Your task to perform on an android device: Open Maps and search for coffee Image 0: 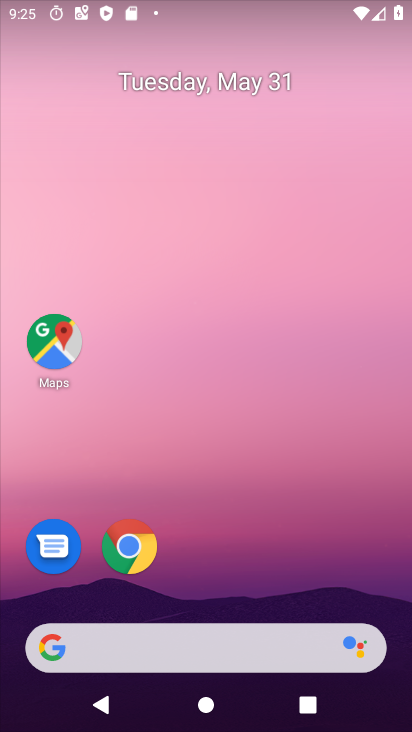
Step 0: click (68, 342)
Your task to perform on an android device: Open Maps and search for coffee Image 1: 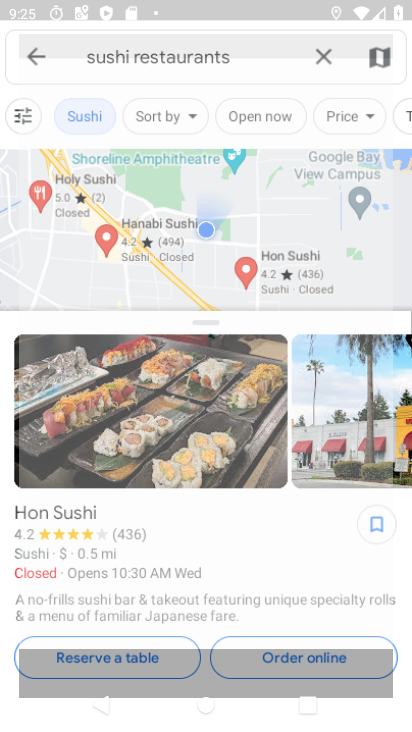
Step 1: click (311, 61)
Your task to perform on an android device: Open Maps and search for coffee Image 2: 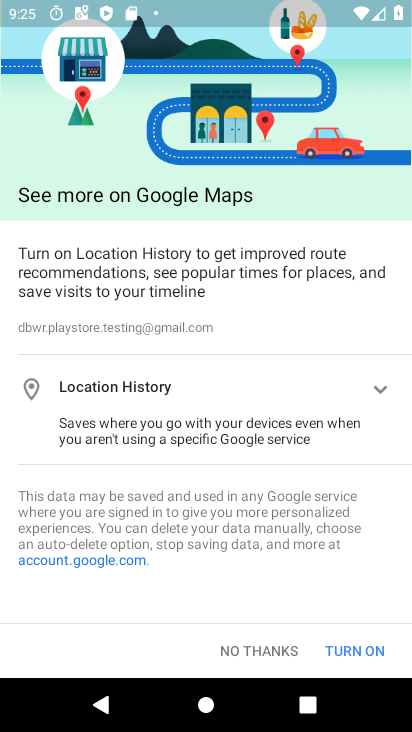
Step 2: click (362, 655)
Your task to perform on an android device: Open Maps and search for coffee Image 3: 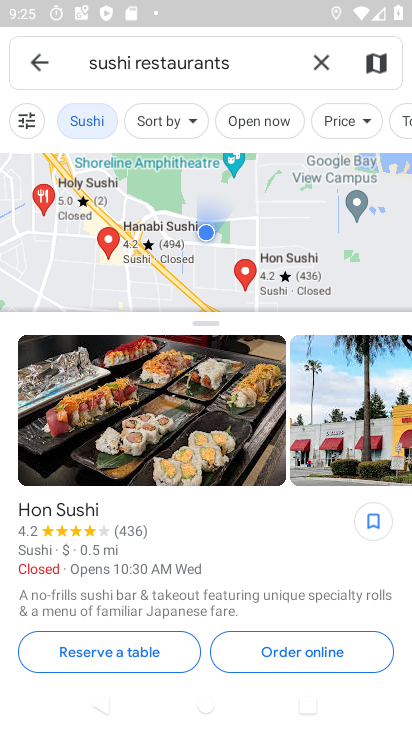
Step 3: click (322, 63)
Your task to perform on an android device: Open Maps and search for coffee Image 4: 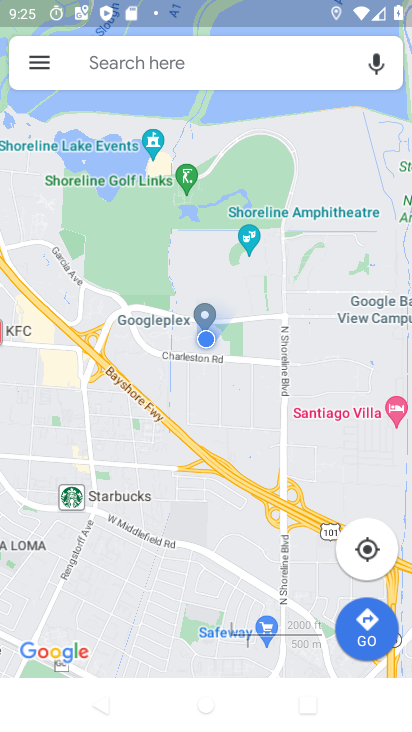
Step 4: click (204, 54)
Your task to perform on an android device: Open Maps and search for coffee Image 5: 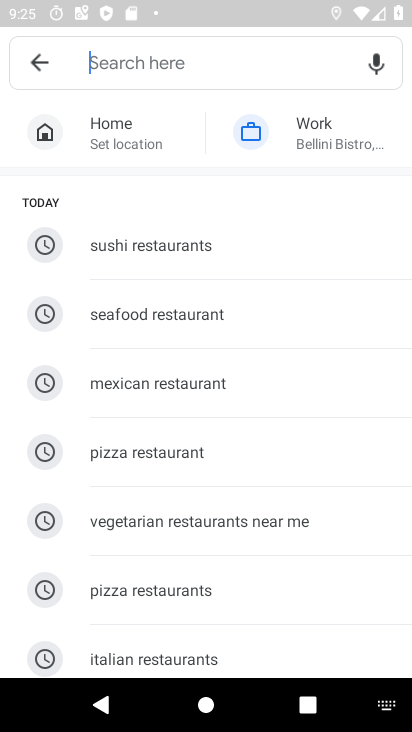
Step 5: type "coffee"
Your task to perform on an android device: Open Maps and search for coffee Image 6: 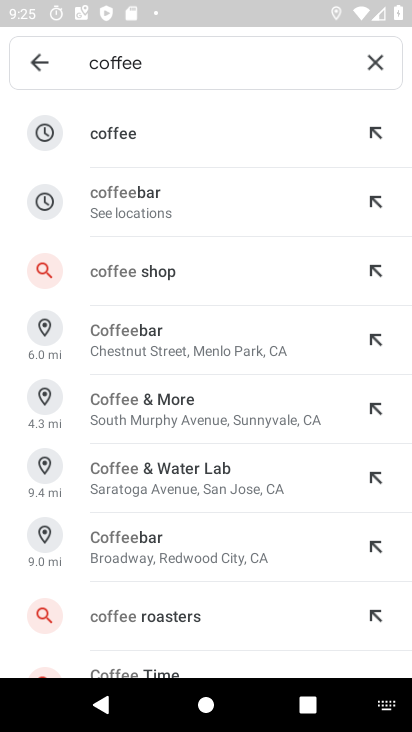
Step 6: click (115, 126)
Your task to perform on an android device: Open Maps and search for coffee Image 7: 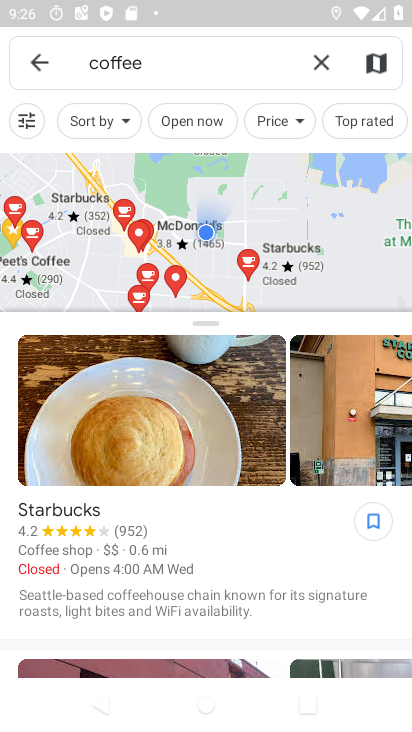
Step 7: task complete